Your task to perform on an android device: turn off javascript in the chrome app Image 0: 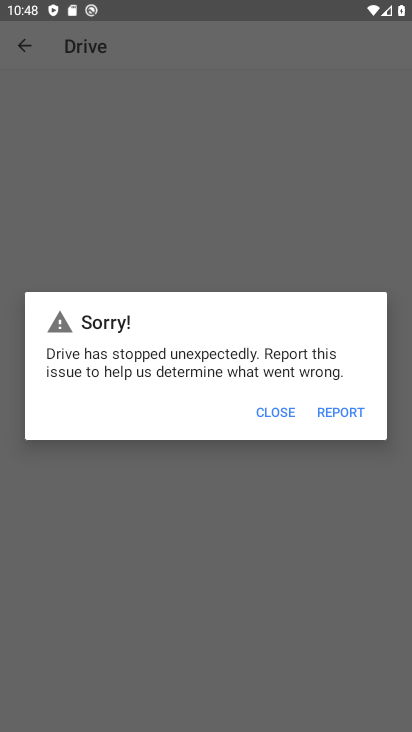
Step 0: press home button
Your task to perform on an android device: turn off javascript in the chrome app Image 1: 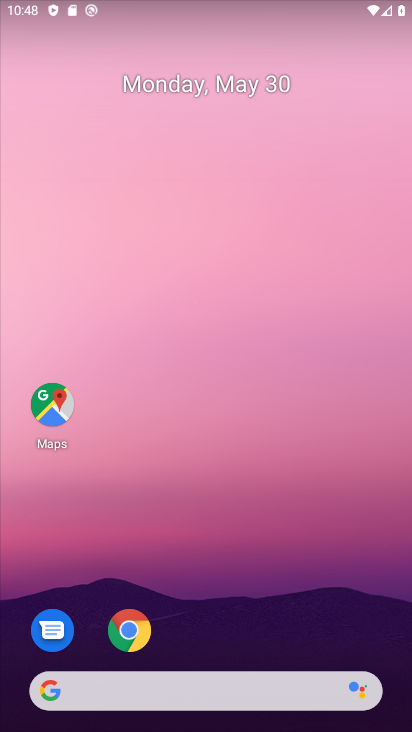
Step 1: click (121, 633)
Your task to perform on an android device: turn off javascript in the chrome app Image 2: 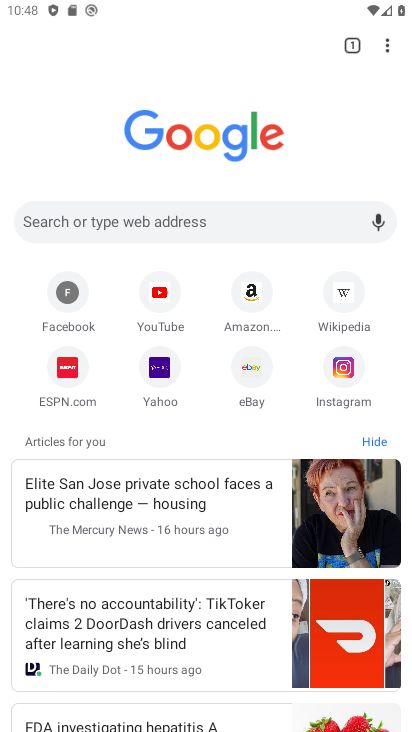
Step 2: click (383, 36)
Your task to perform on an android device: turn off javascript in the chrome app Image 3: 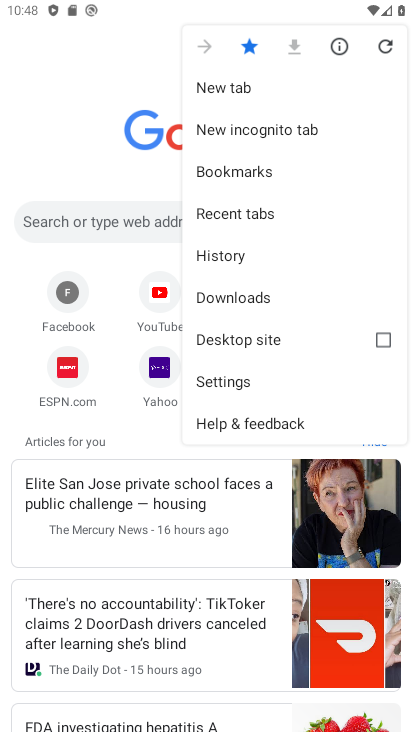
Step 3: click (221, 380)
Your task to perform on an android device: turn off javascript in the chrome app Image 4: 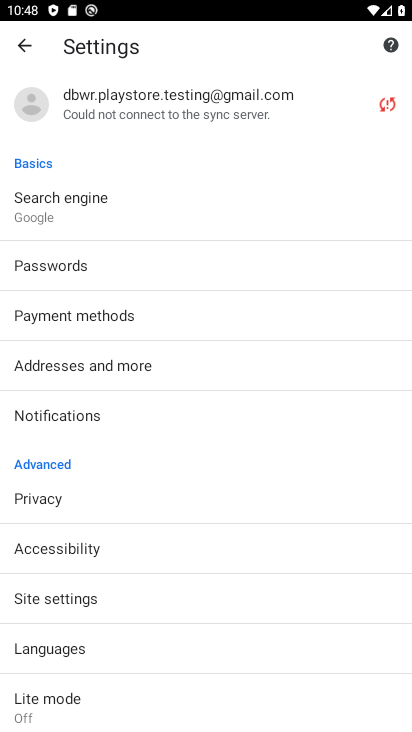
Step 4: click (38, 591)
Your task to perform on an android device: turn off javascript in the chrome app Image 5: 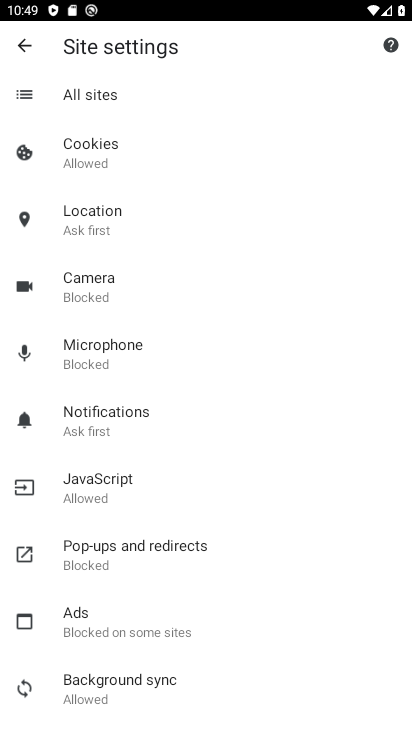
Step 5: click (111, 489)
Your task to perform on an android device: turn off javascript in the chrome app Image 6: 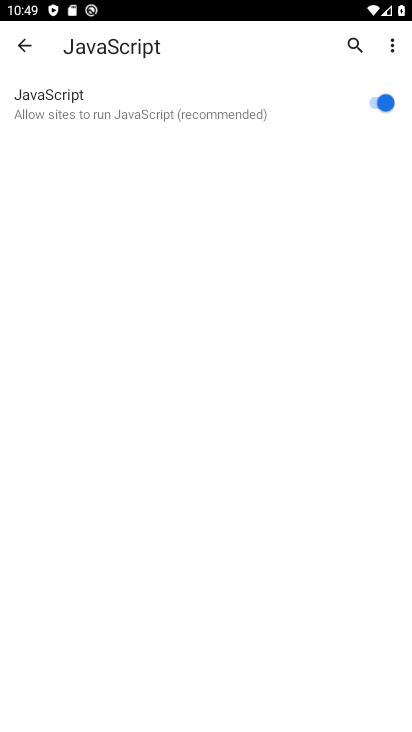
Step 6: click (373, 107)
Your task to perform on an android device: turn off javascript in the chrome app Image 7: 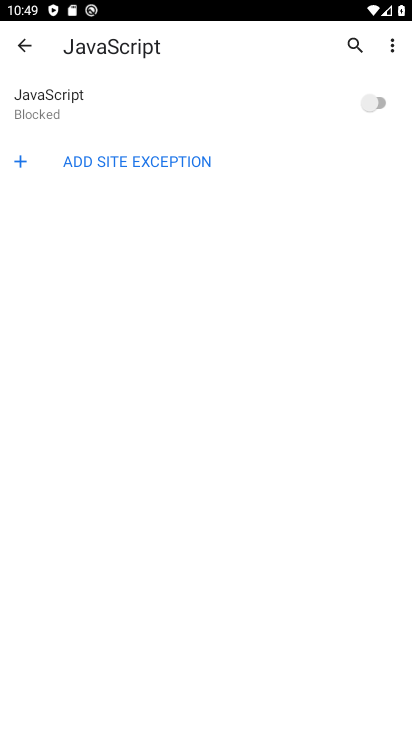
Step 7: task complete